Your task to perform on an android device: find snoozed emails in the gmail app Image 0: 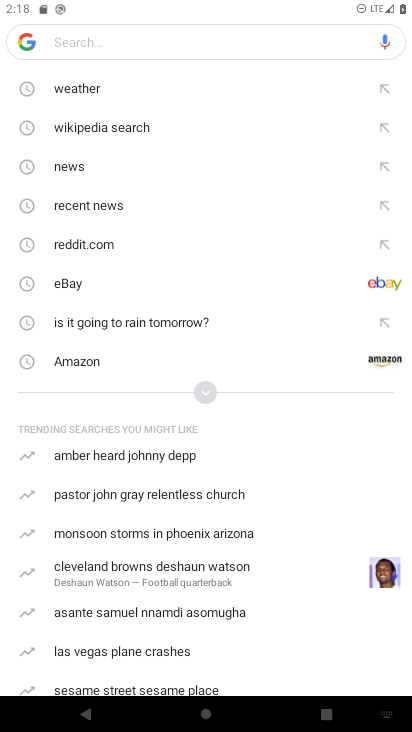
Step 0: press home button
Your task to perform on an android device: find snoozed emails in the gmail app Image 1: 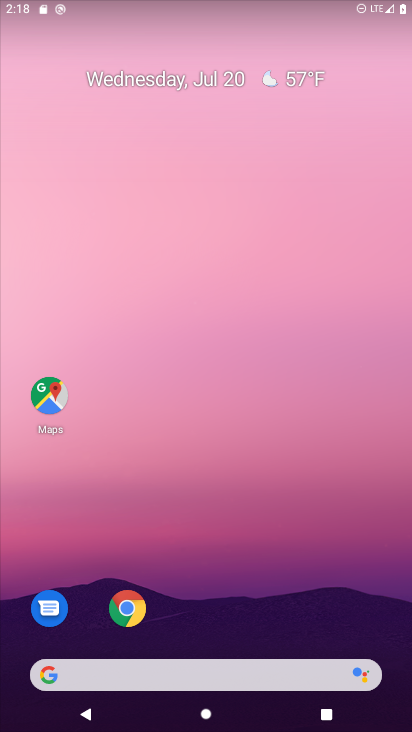
Step 1: drag from (242, 586) to (240, 278)
Your task to perform on an android device: find snoozed emails in the gmail app Image 2: 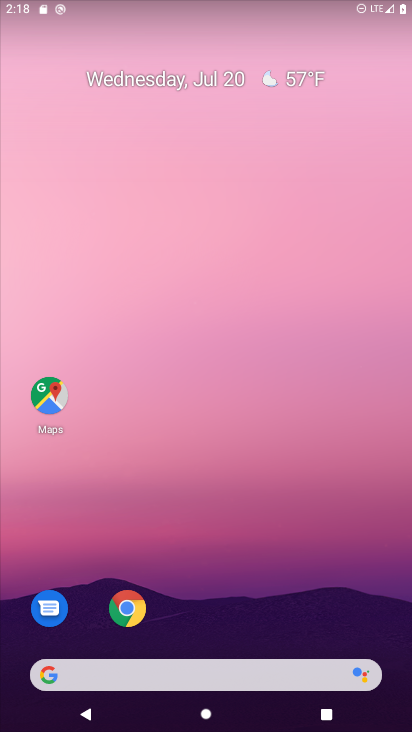
Step 2: drag from (253, 727) to (247, 382)
Your task to perform on an android device: find snoozed emails in the gmail app Image 3: 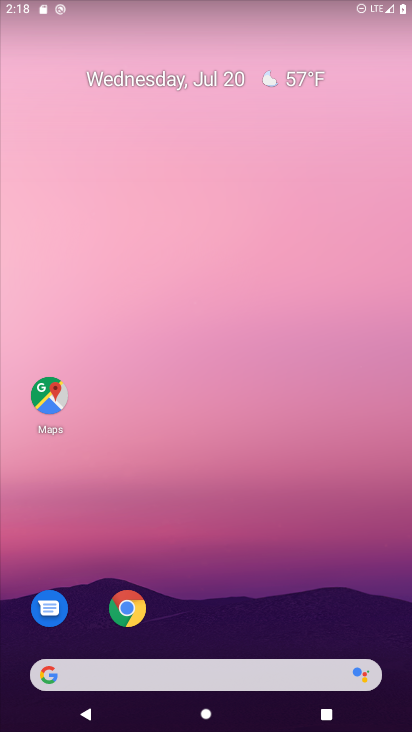
Step 3: drag from (233, 726) to (254, 160)
Your task to perform on an android device: find snoozed emails in the gmail app Image 4: 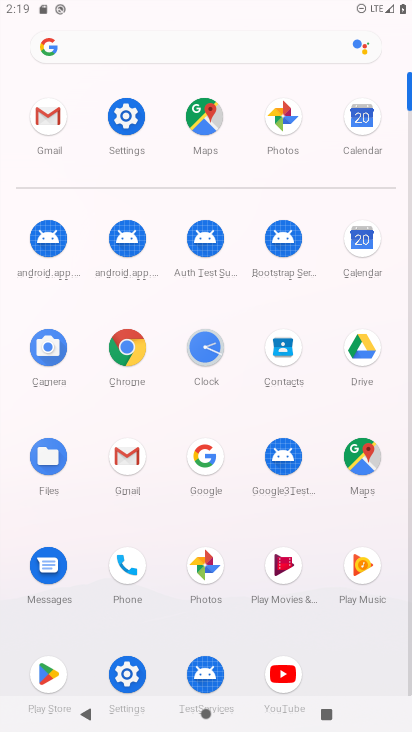
Step 4: click (130, 455)
Your task to perform on an android device: find snoozed emails in the gmail app Image 5: 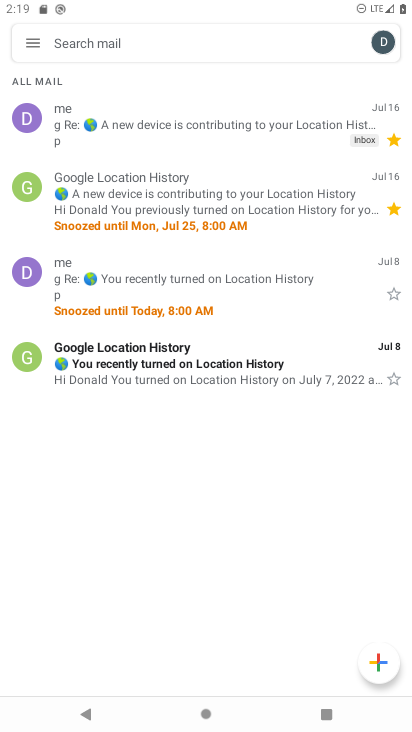
Step 5: click (34, 36)
Your task to perform on an android device: find snoozed emails in the gmail app Image 6: 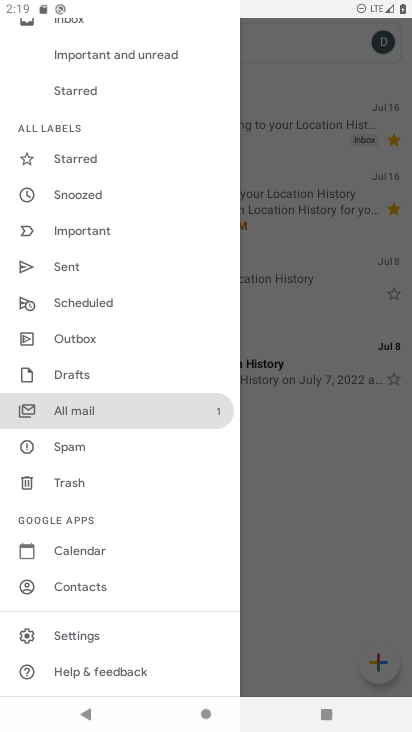
Step 6: click (73, 195)
Your task to perform on an android device: find snoozed emails in the gmail app Image 7: 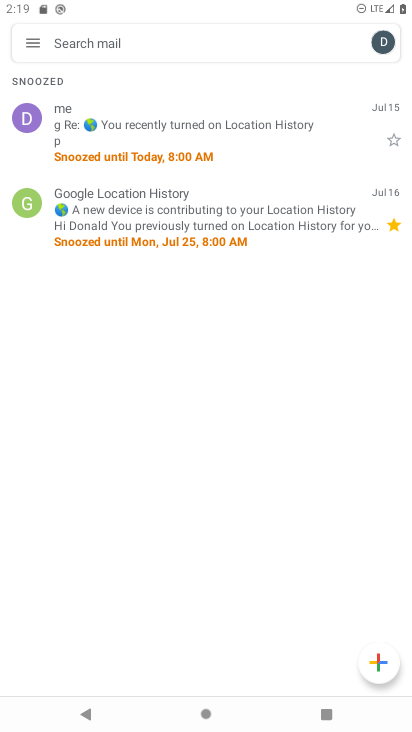
Step 7: task complete